Your task to perform on an android device: open sync settings in chrome Image 0: 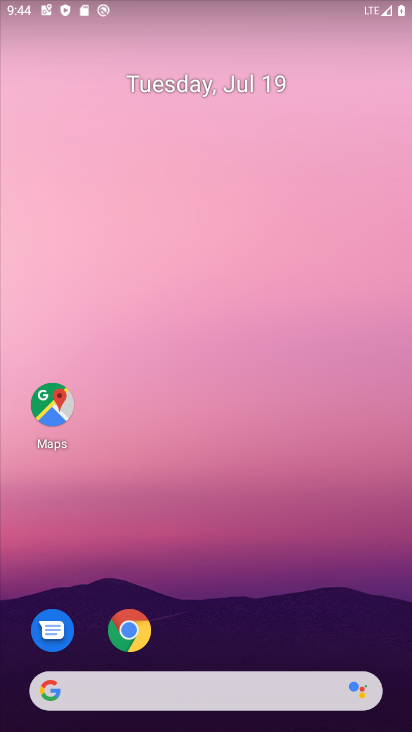
Step 0: click (131, 629)
Your task to perform on an android device: open sync settings in chrome Image 1: 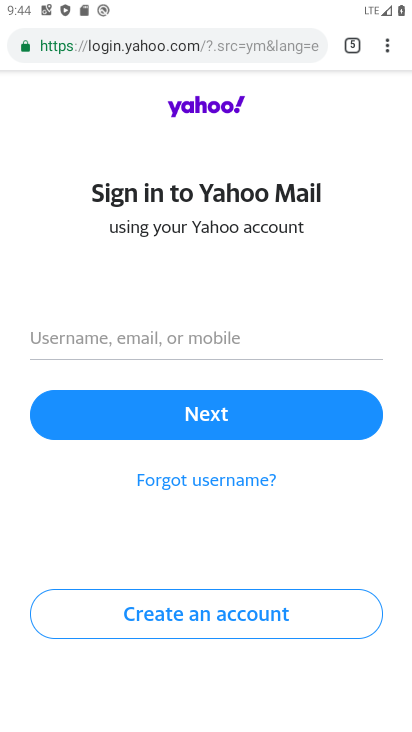
Step 1: click (384, 46)
Your task to perform on an android device: open sync settings in chrome Image 2: 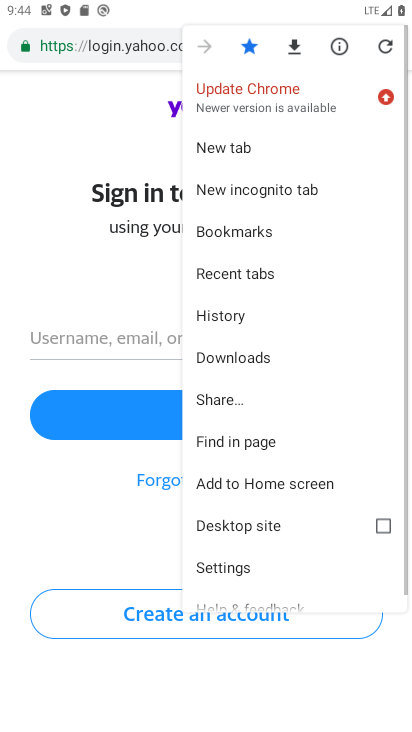
Step 2: click (228, 568)
Your task to perform on an android device: open sync settings in chrome Image 3: 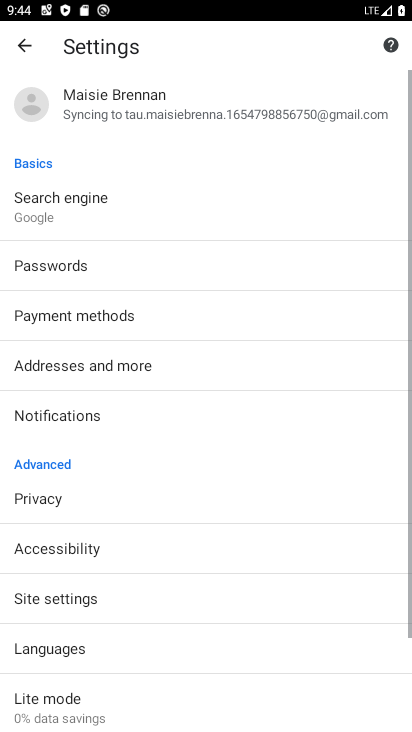
Step 3: click (73, 598)
Your task to perform on an android device: open sync settings in chrome Image 4: 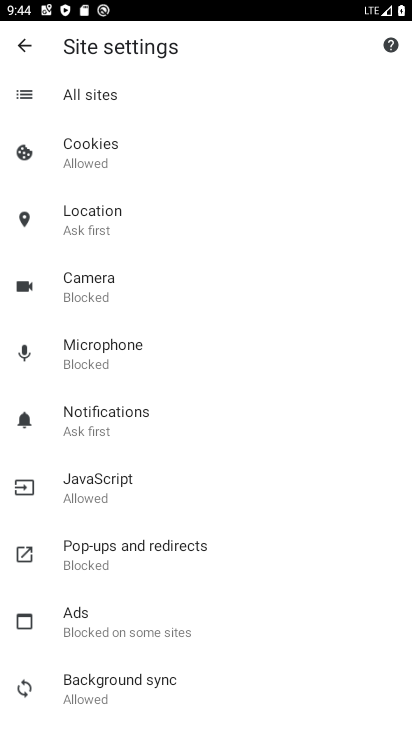
Step 4: click (141, 682)
Your task to perform on an android device: open sync settings in chrome Image 5: 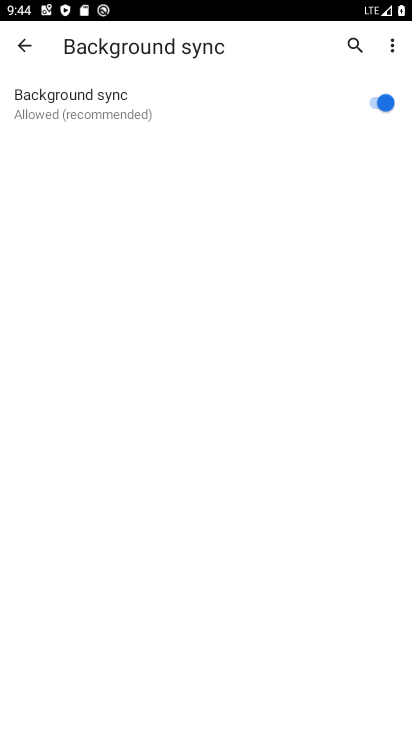
Step 5: task complete